Your task to perform on an android device: Open sound settings Image 0: 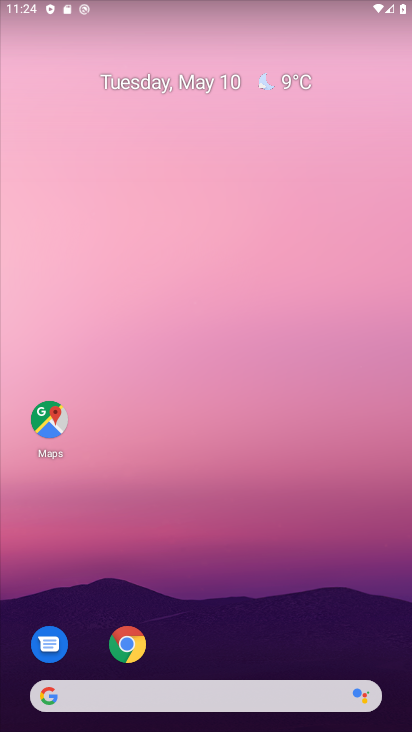
Step 0: drag from (195, 638) to (299, 25)
Your task to perform on an android device: Open sound settings Image 1: 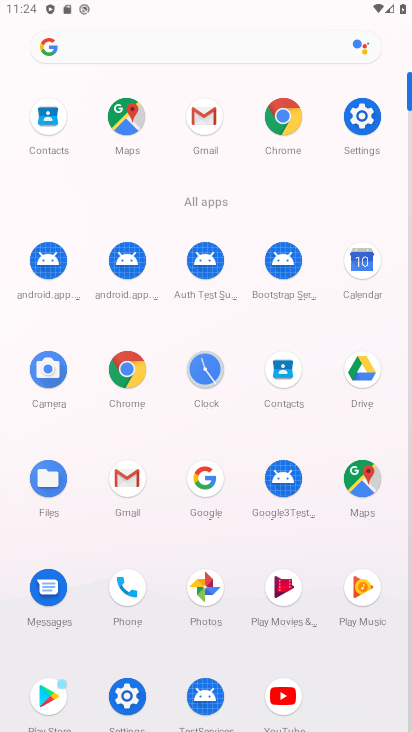
Step 1: click (365, 124)
Your task to perform on an android device: Open sound settings Image 2: 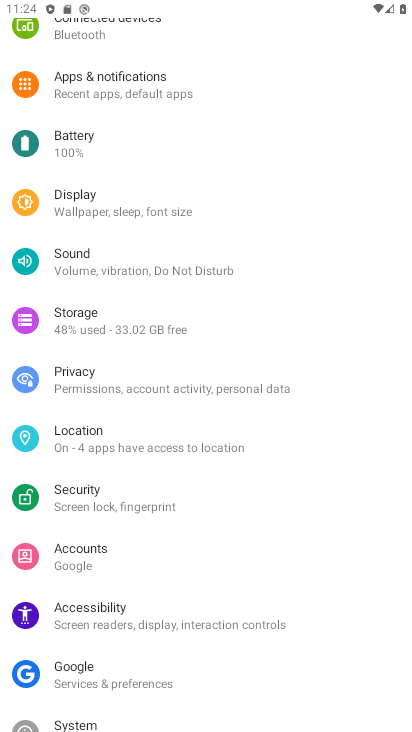
Step 2: click (102, 269)
Your task to perform on an android device: Open sound settings Image 3: 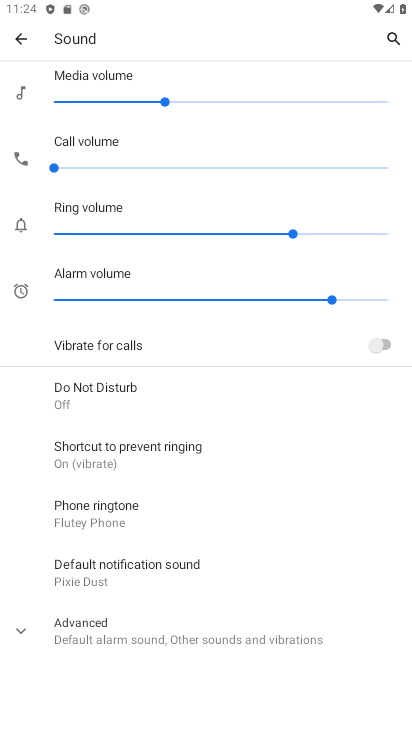
Step 3: task complete